Your task to perform on an android device: Install the Starbucks app Image 0: 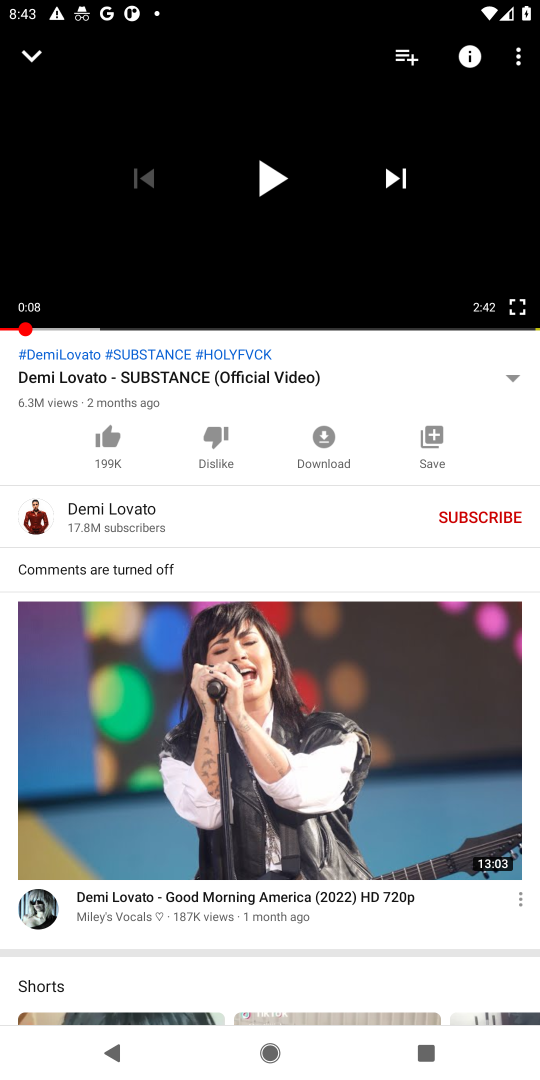
Step 0: press home button
Your task to perform on an android device: Install the Starbucks app Image 1: 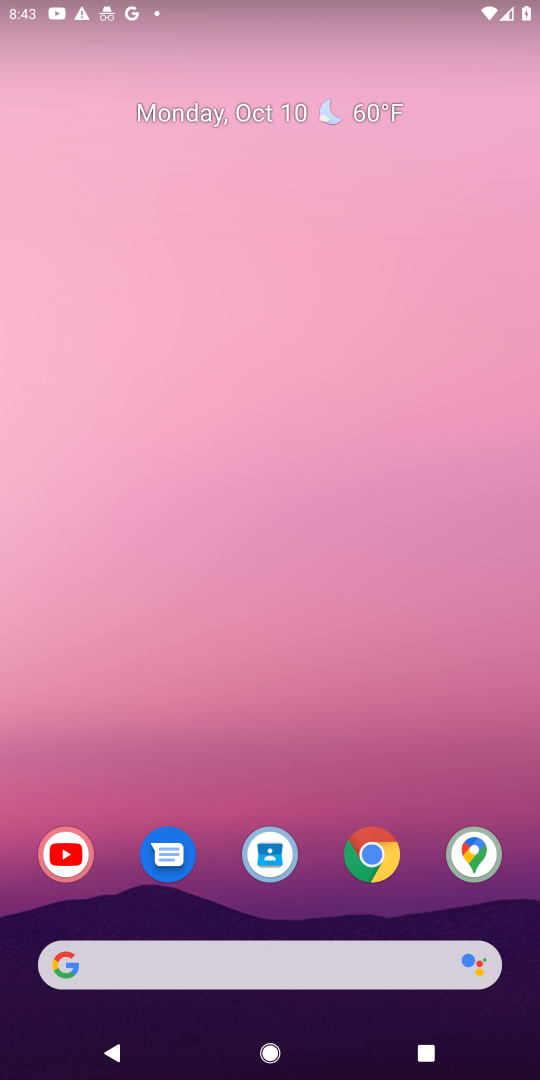
Step 1: drag from (291, 957) to (395, 223)
Your task to perform on an android device: Install the Starbucks app Image 2: 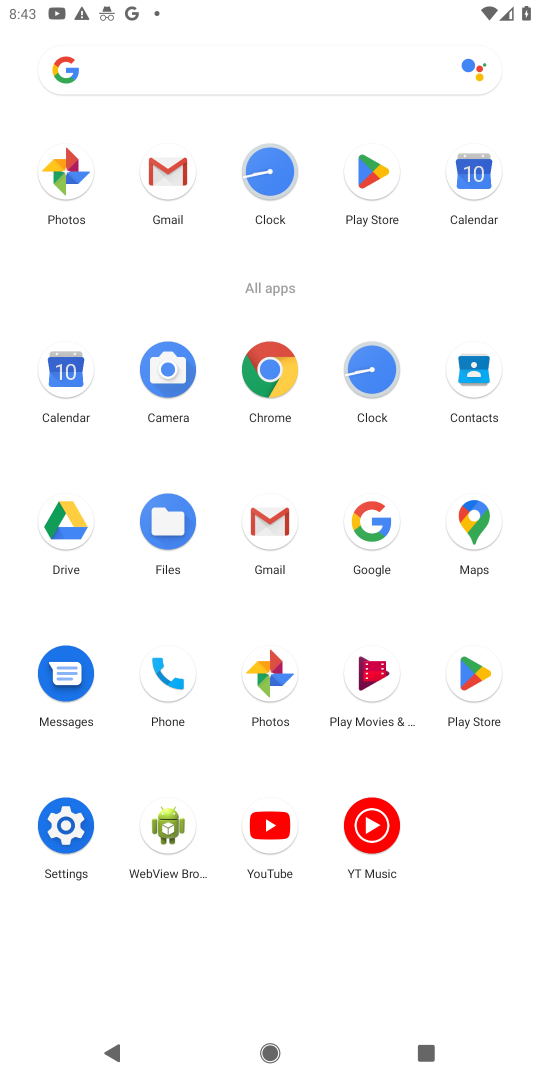
Step 2: click (373, 177)
Your task to perform on an android device: Install the Starbucks app Image 3: 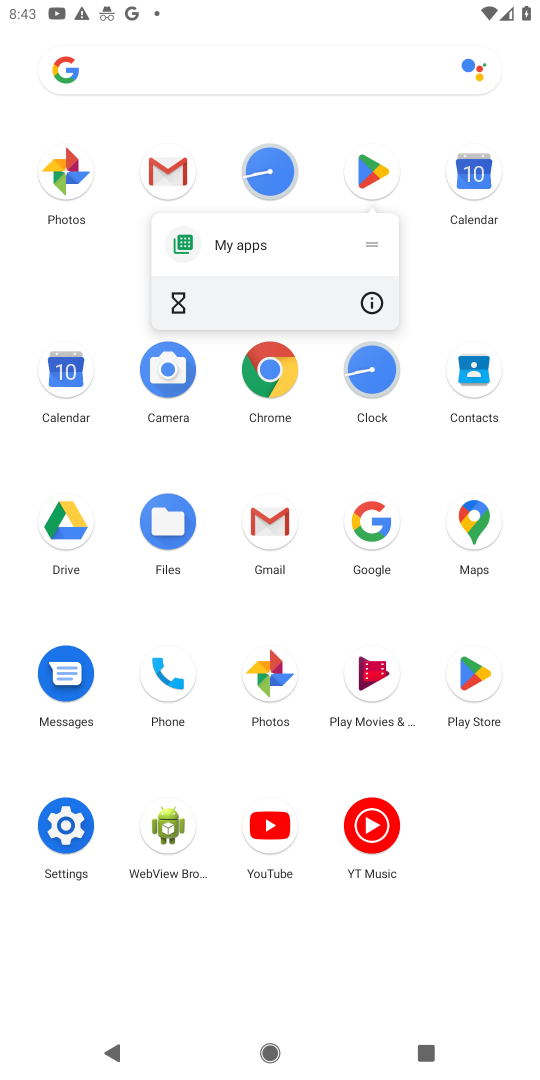
Step 3: click (373, 179)
Your task to perform on an android device: Install the Starbucks app Image 4: 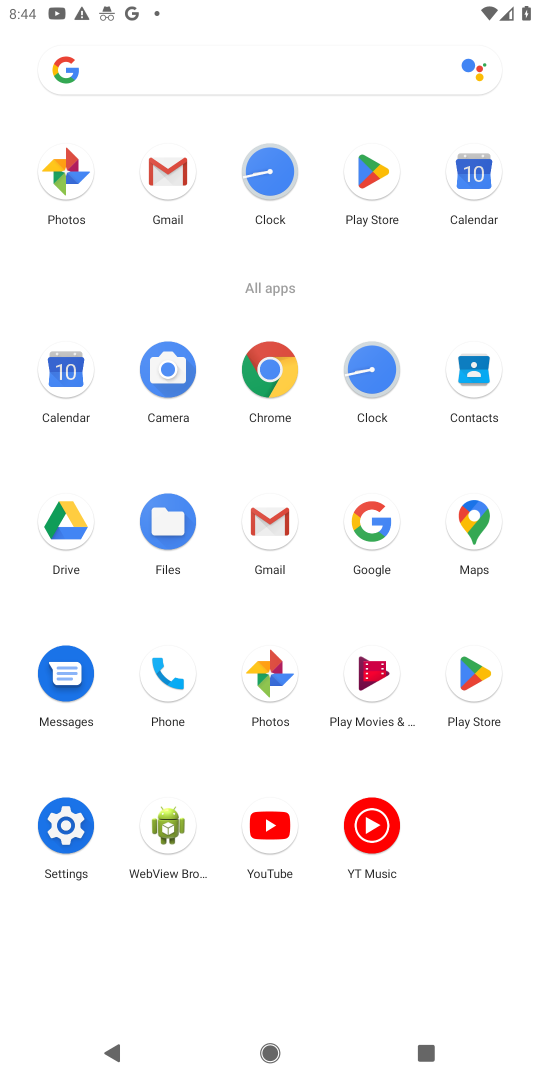
Step 4: click (366, 173)
Your task to perform on an android device: Install the Starbucks app Image 5: 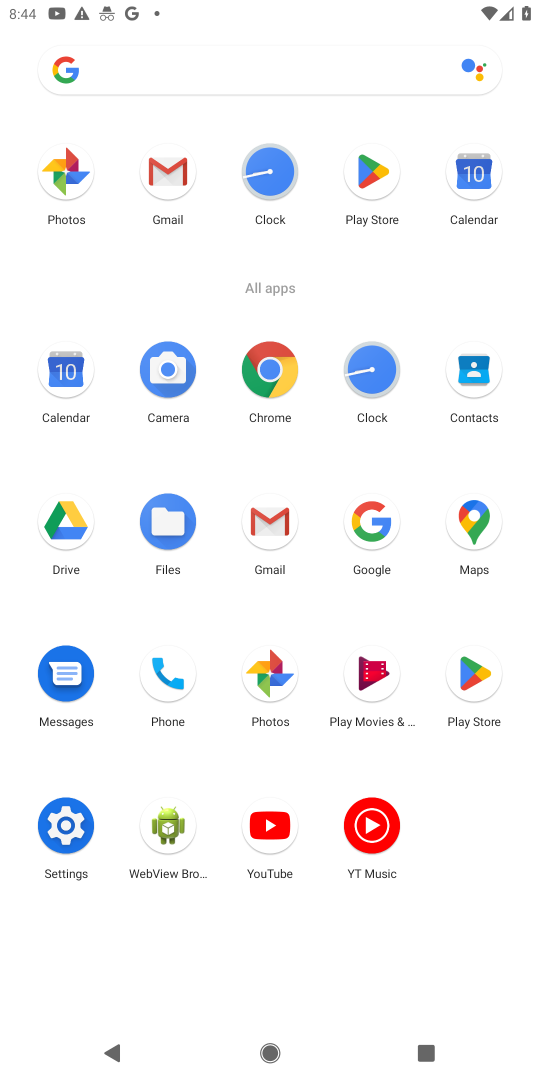
Step 5: click (364, 174)
Your task to perform on an android device: Install the Starbucks app Image 6: 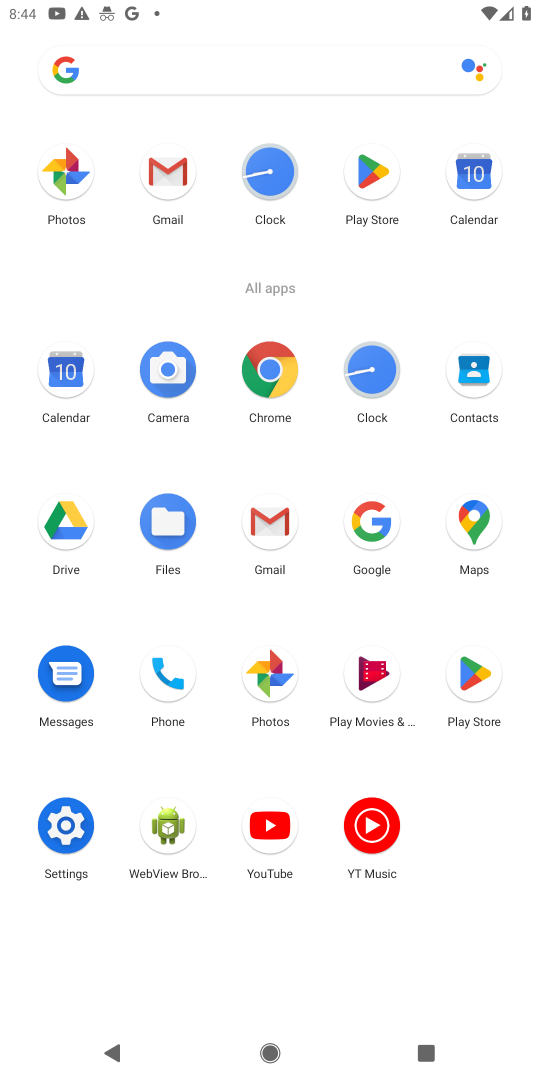
Step 6: click (370, 173)
Your task to perform on an android device: Install the Starbucks app Image 7: 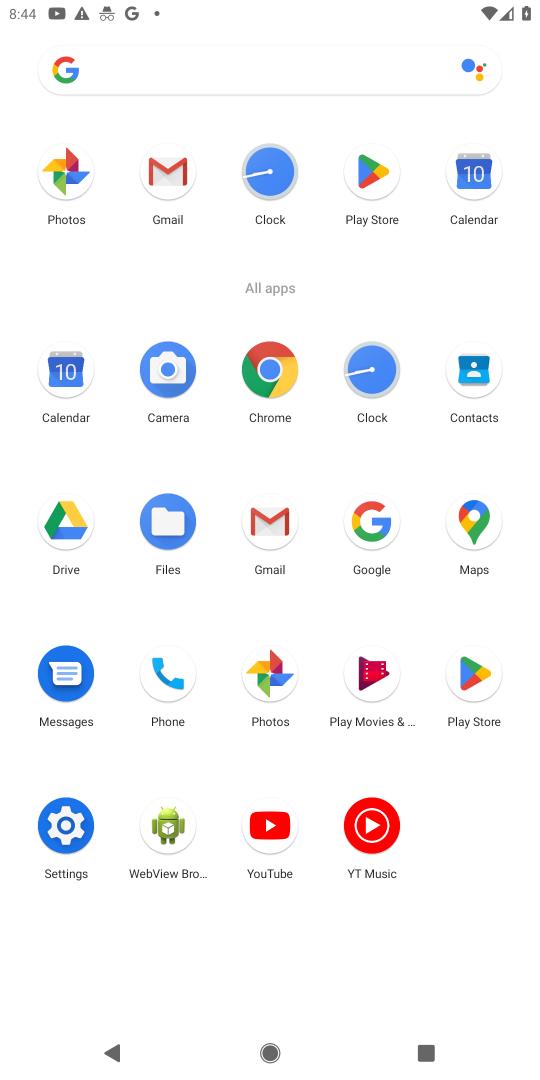
Step 7: click (363, 170)
Your task to perform on an android device: Install the Starbucks app Image 8: 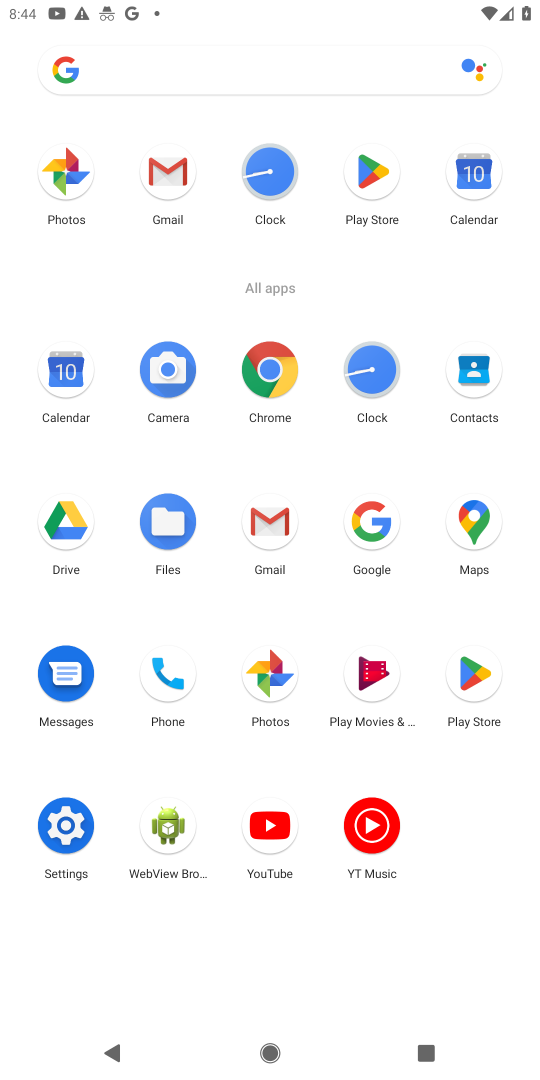
Step 8: click (363, 170)
Your task to perform on an android device: Install the Starbucks app Image 9: 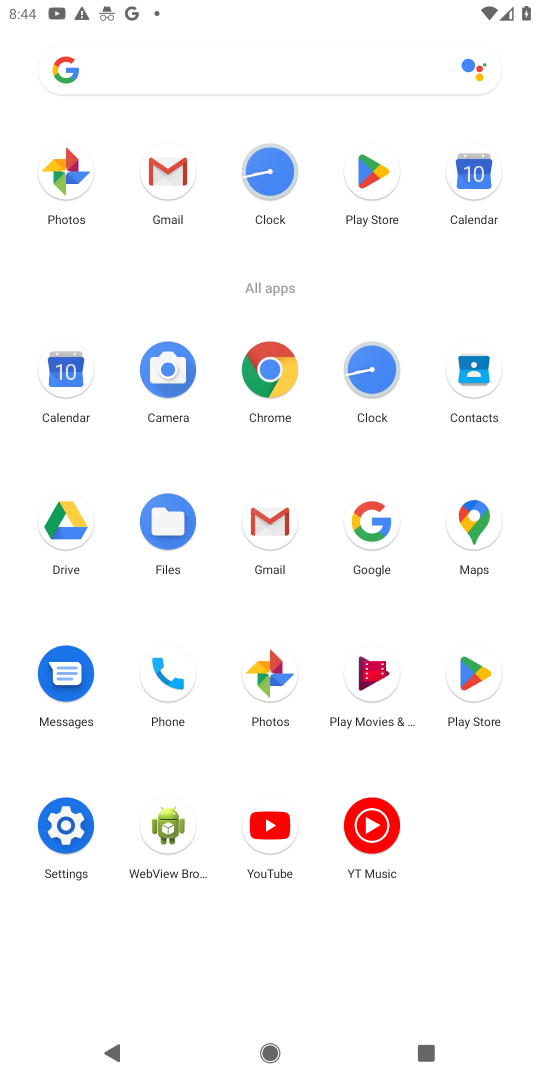
Step 9: task complete